Your task to perform on an android device: turn off picture-in-picture Image 0: 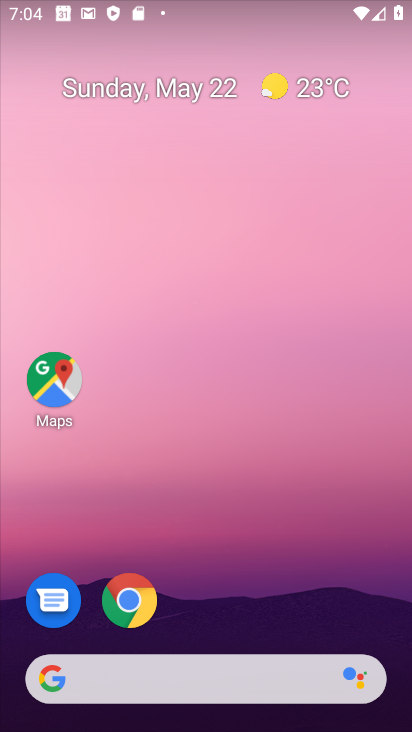
Step 0: drag from (344, 616) to (284, 65)
Your task to perform on an android device: turn off picture-in-picture Image 1: 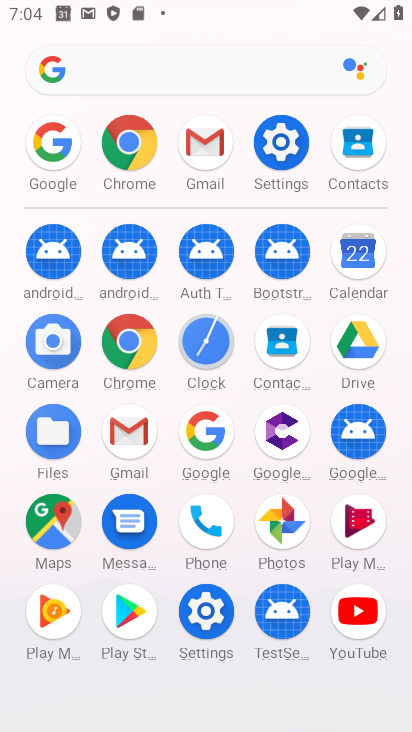
Step 1: click (145, 155)
Your task to perform on an android device: turn off picture-in-picture Image 2: 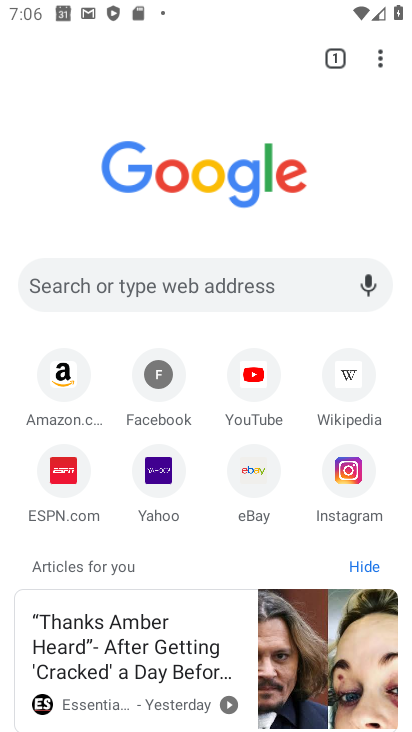
Step 2: task complete